Your task to perform on an android device: delete browsing data in the chrome app Image 0: 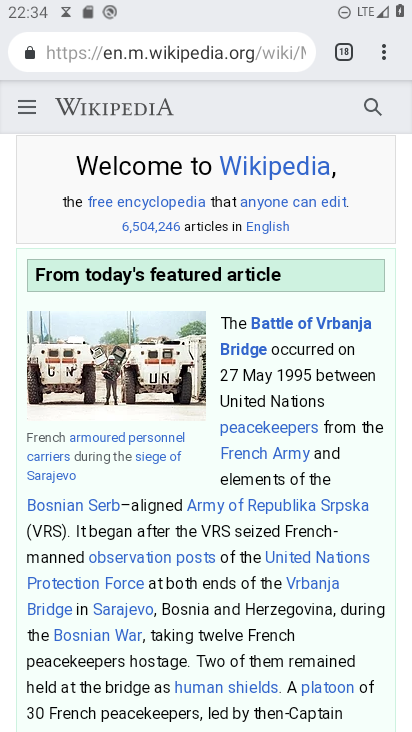
Step 0: click (384, 47)
Your task to perform on an android device: delete browsing data in the chrome app Image 1: 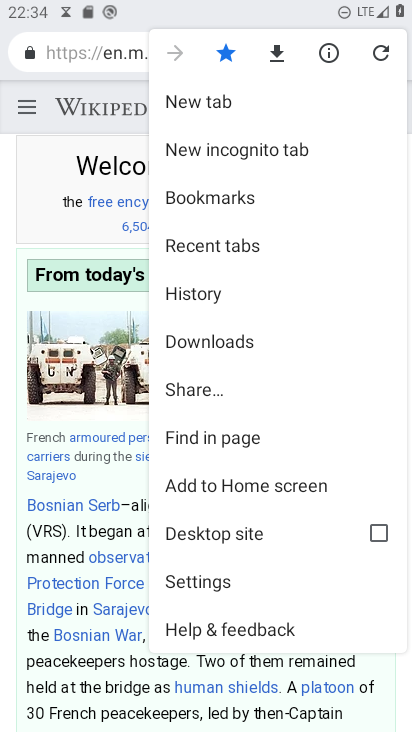
Step 1: click (215, 292)
Your task to perform on an android device: delete browsing data in the chrome app Image 2: 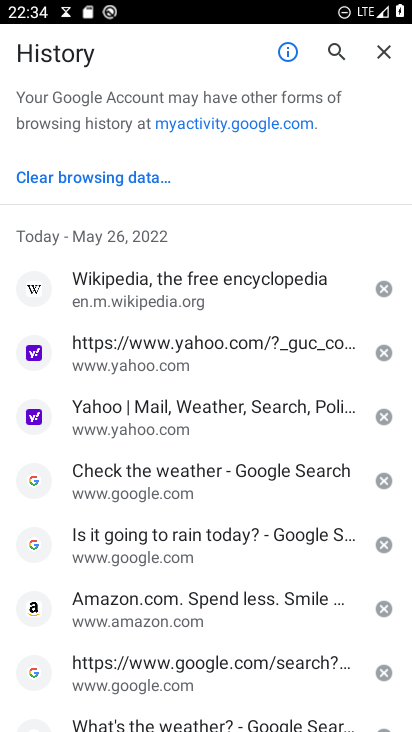
Step 2: click (102, 172)
Your task to perform on an android device: delete browsing data in the chrome app Image 3: 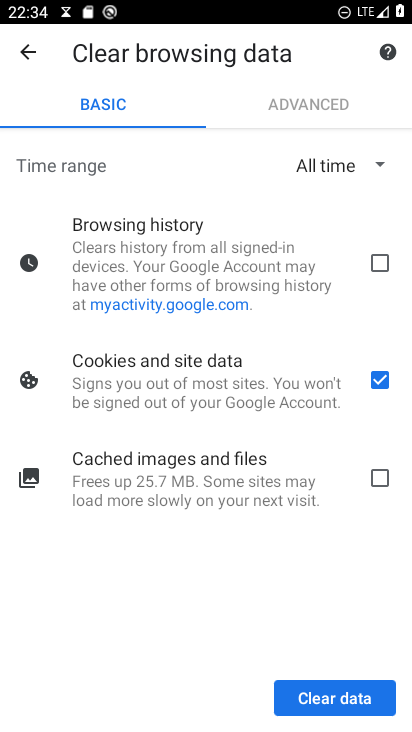
Step 3: click (333, 692)
Your task to perform on an android device: delete browsing data in the chrome app Image 4: 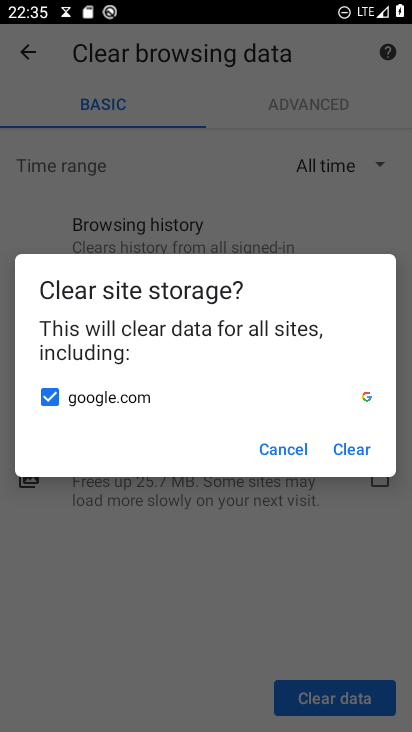
Step 4: click (349, 454)
Your task to perform on an android device: delete browsing data in the chrome app Image 5: 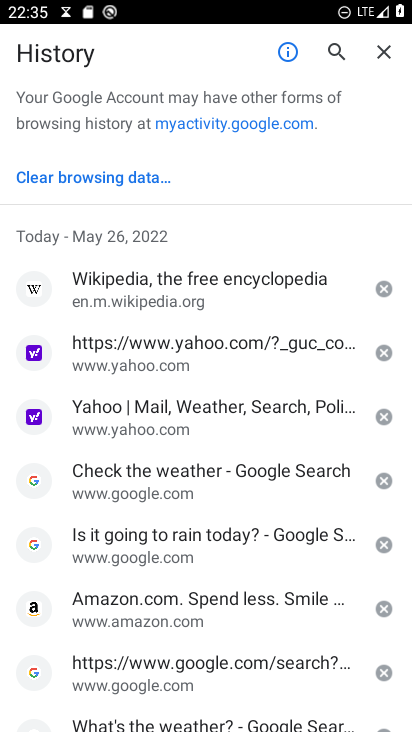
Step 5: click (87, 174)
Your task to perform on an android device: delete browsing data in the chrome app Image 6: 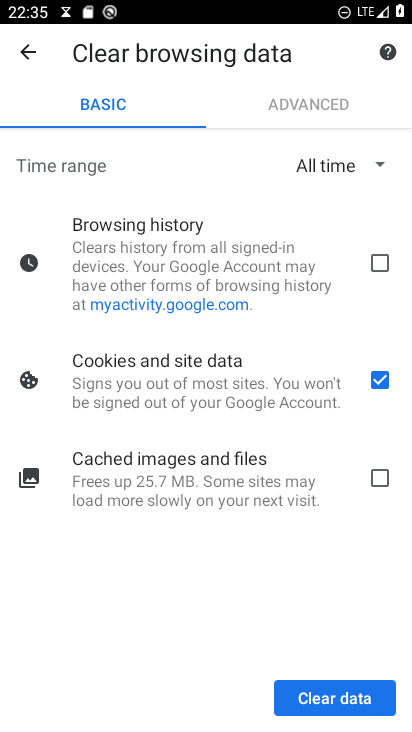
Step 6: click (375, 473)
Your task to perform on an android device: delete browsing data in the chrome app Image 7: 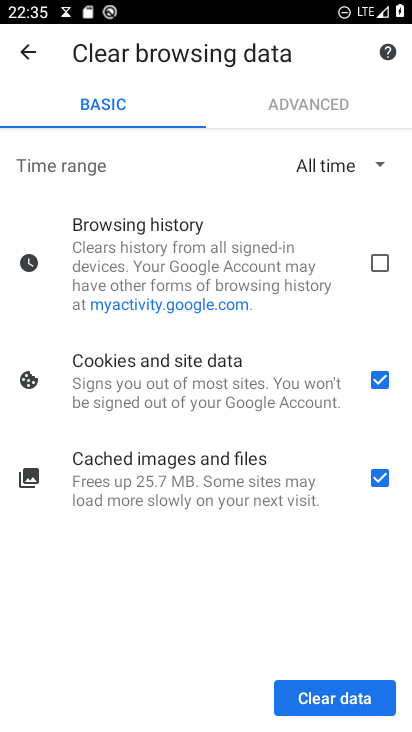
Step 7: click (338, 698)
Your task to perform on an android device: delete browsing data in the chrome app Image 8: 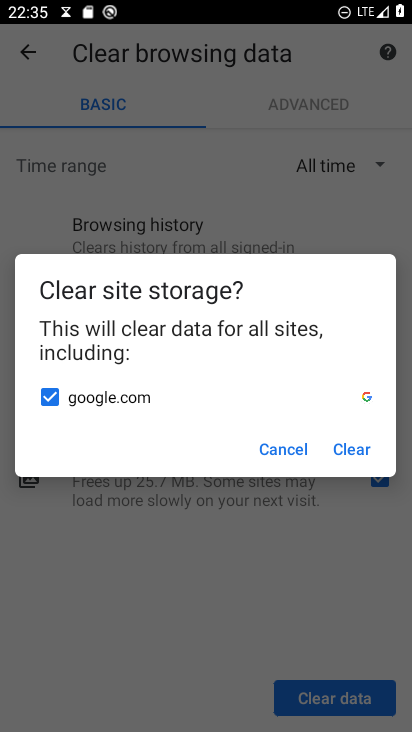
Step 8: click (262, 442)
Your task to perform on an android device: delete browsing data in the chrome app Image 9: 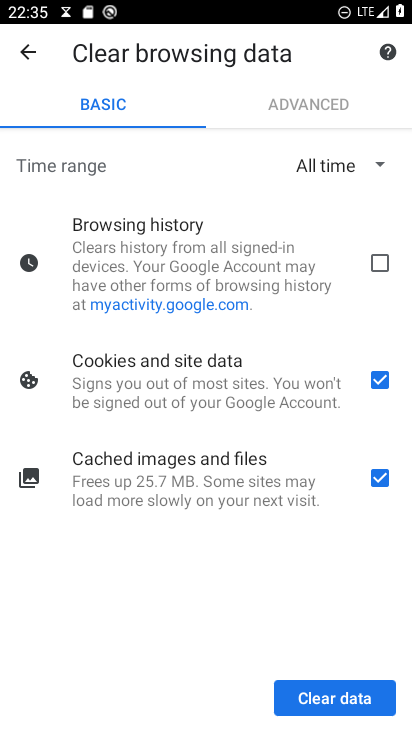
Step 9: click (389, 258)
Your task to perform on an android device: delete browsing data in the chrome app Image 10: 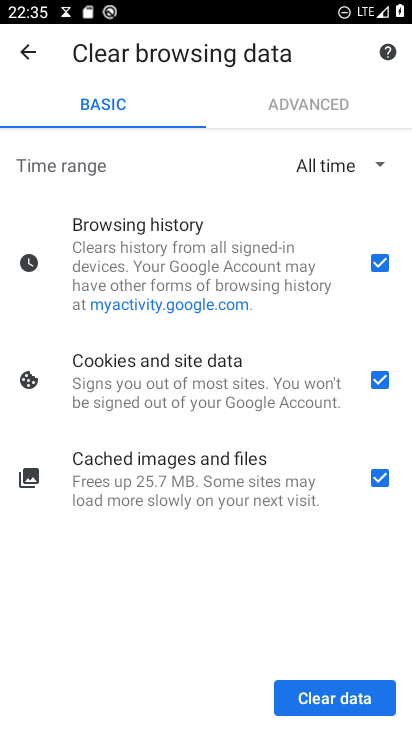
Step 10: click (319, 675)
Your task to perform on an android device: delete browsing data in the chrome app Image 11: 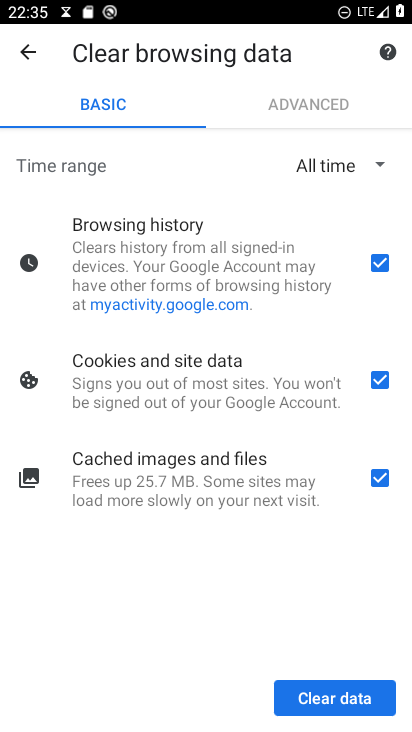
Step 11: click (328, 703)
Your task to perform on an android device: delete browsing data in the chrome app Image 12: 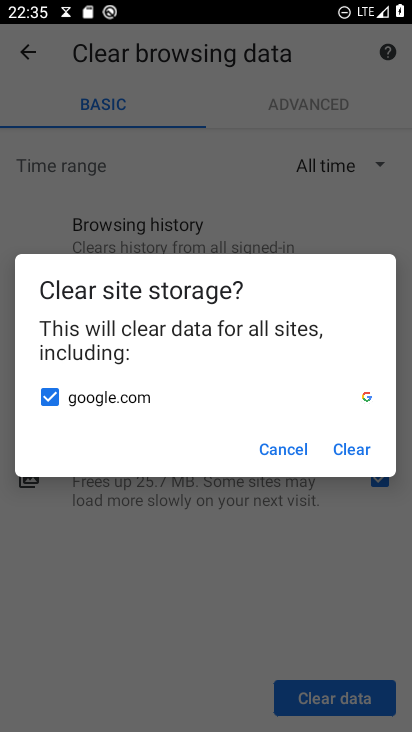
Step 12: click (357, 445)
Your task to perform on an android device: delete browsing data in the chrome app Image 13: 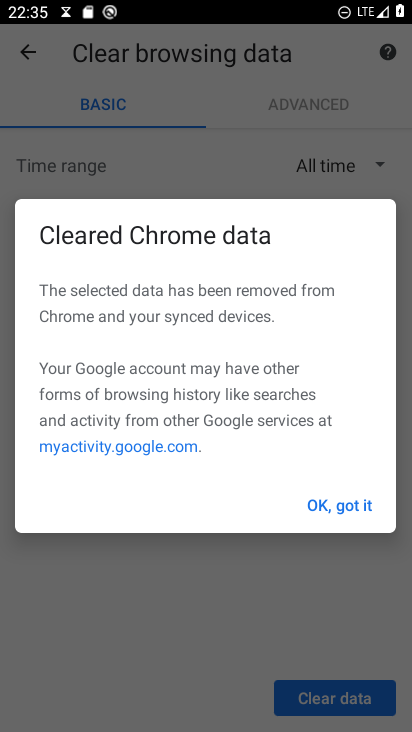
Step 13: click (339, 505)
Your task to perform on an android device: delete browsing data in the chrome app Image 14: 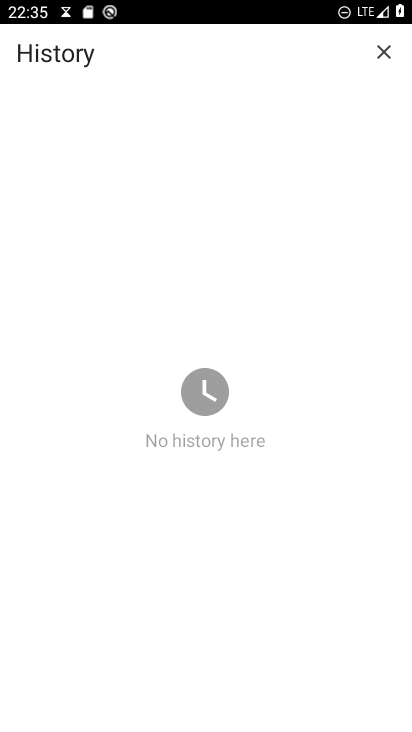
Step 14: task complete